Your task to perform on an android device: uninstall "ZOOM Cloud Meetings" Image 0: 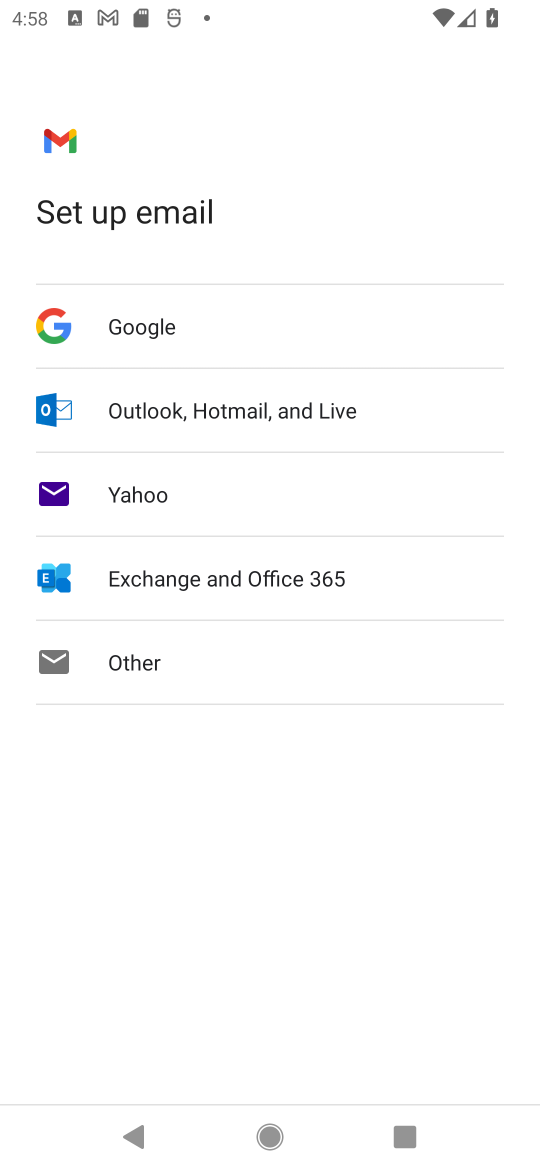
Step 0: press home button
Your task to perform on an android device: uninstall "ZOOM Cloud Meetings" Image 1: 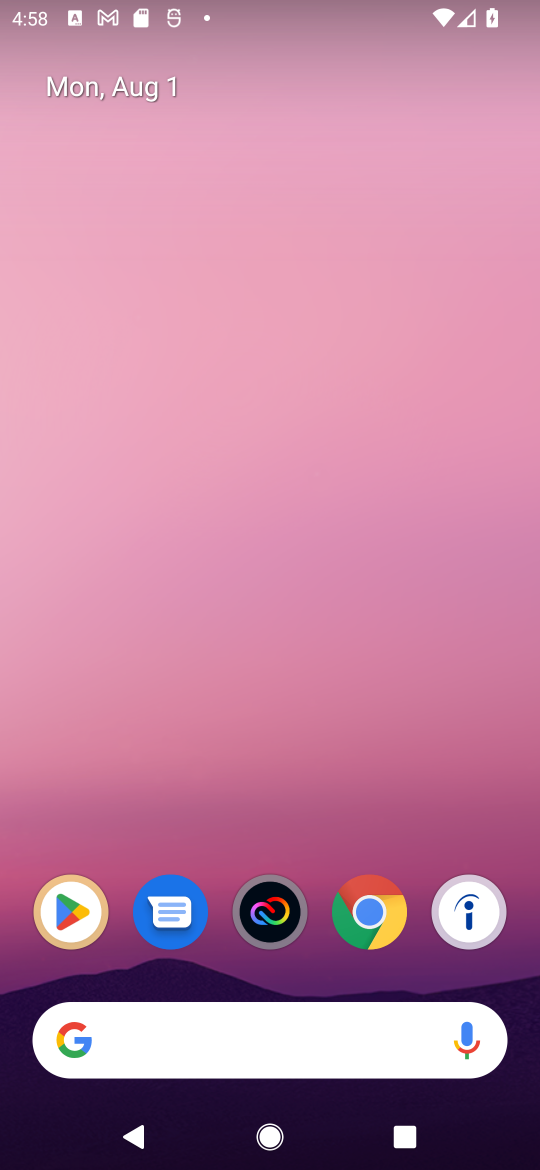
Step 1: click (62, 922)
Your task to perform on an android device: uninstall "ZOOM Cloud Meetings" Image 2: 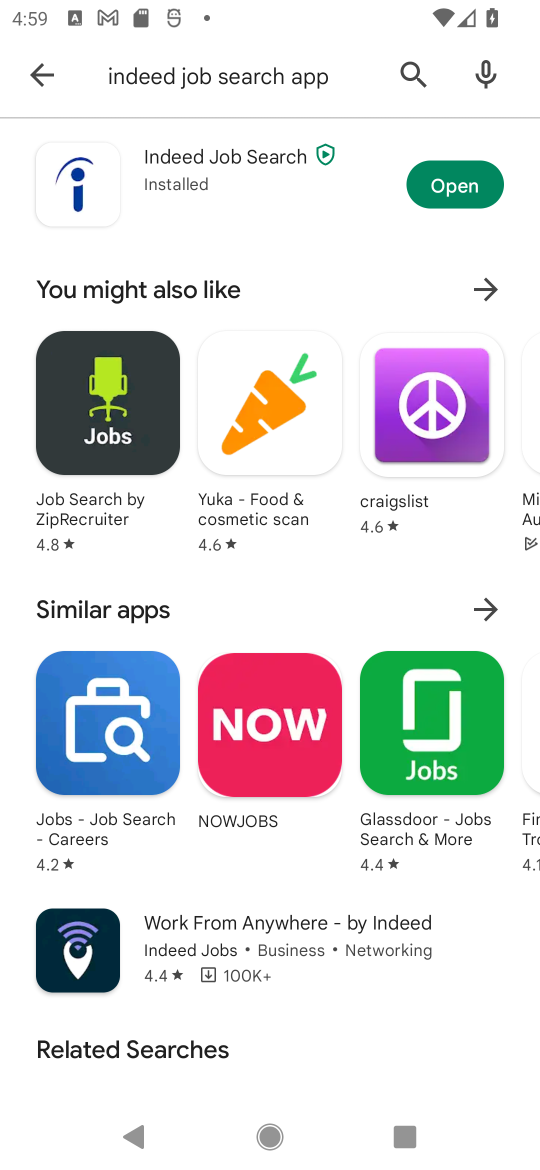
Step 2: click (407, 66)
Your task to perform on an android device: uninstall "ZOOM Cloud Meetings" Image 3: 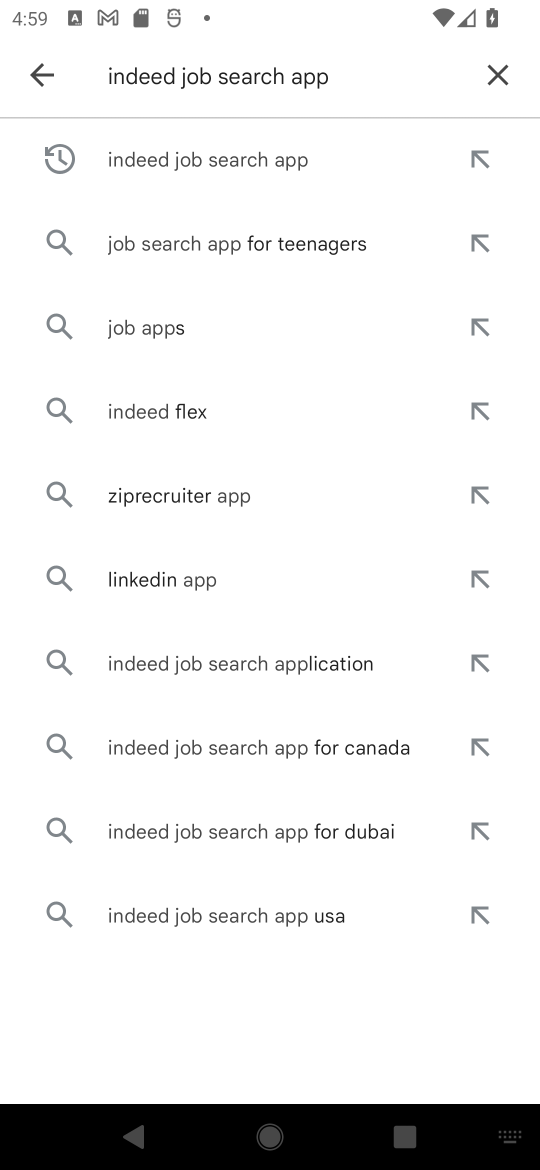
Step 3: click (502, 73)
Your task to perform on an android device: uninstall "ZOOM Cloud Meetings" Image 4: 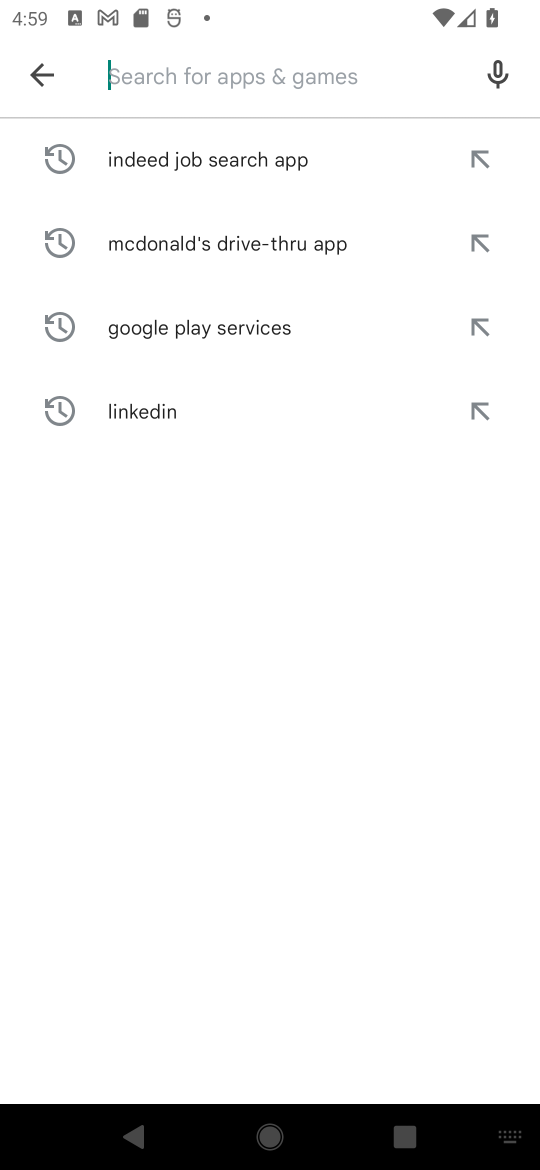
Step 4: type "ZOOM Cloud Meetings"
Your task to perform on an android device: uninstall "ZOOM Cloud Meetings" Image 5: 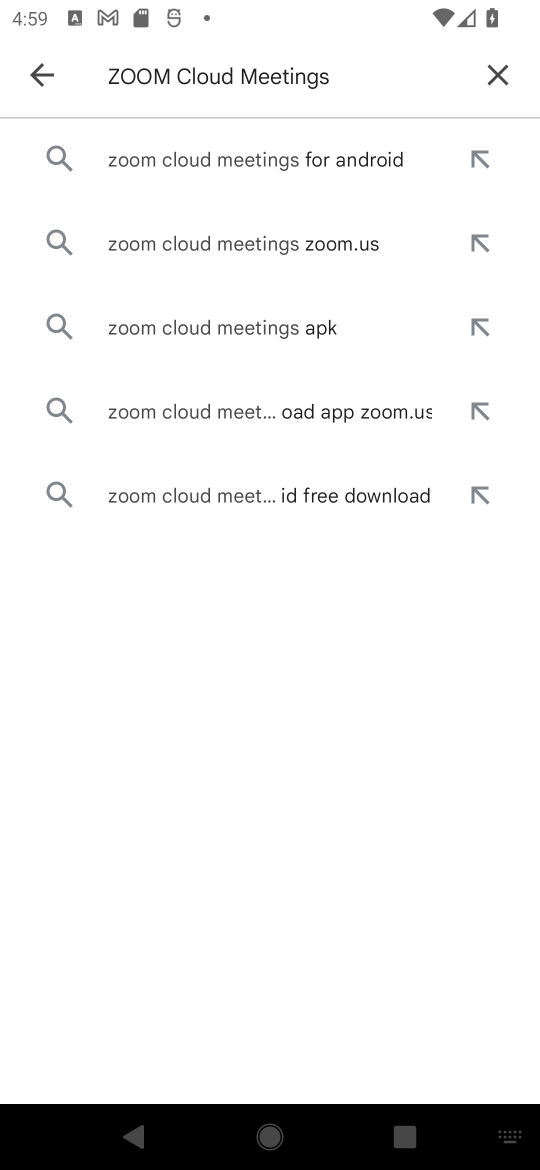
Step 5: click (214, 165)
Your task to perform on an android device: uninstall "ZOOM Cloud Meetings" Image 6: 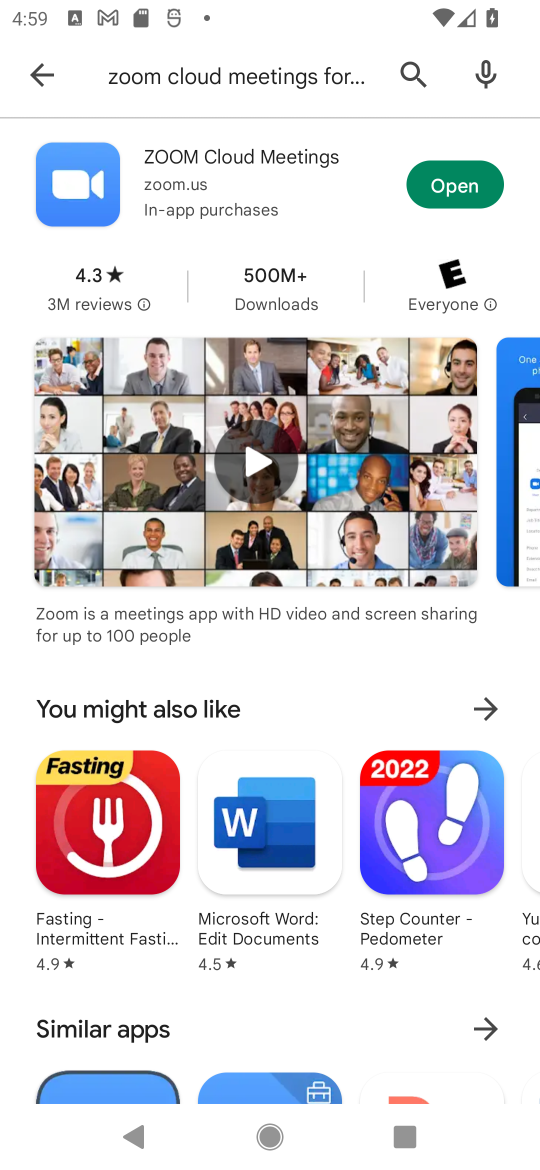
Step 6: click (115, 148)
Your task to perform on an android device: uninstall "ZOOM Cloud Meetings" Image 7: 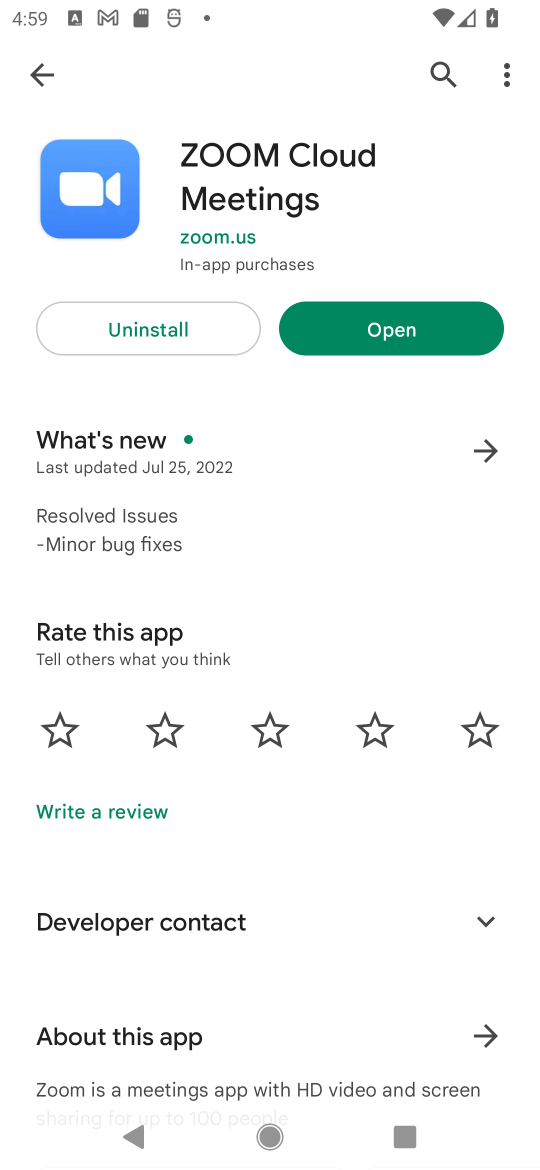
Step 7: click (116, 331)
Your task to perform on an android device: uninstall "ZOOM Cloud Meetings" Image 8: 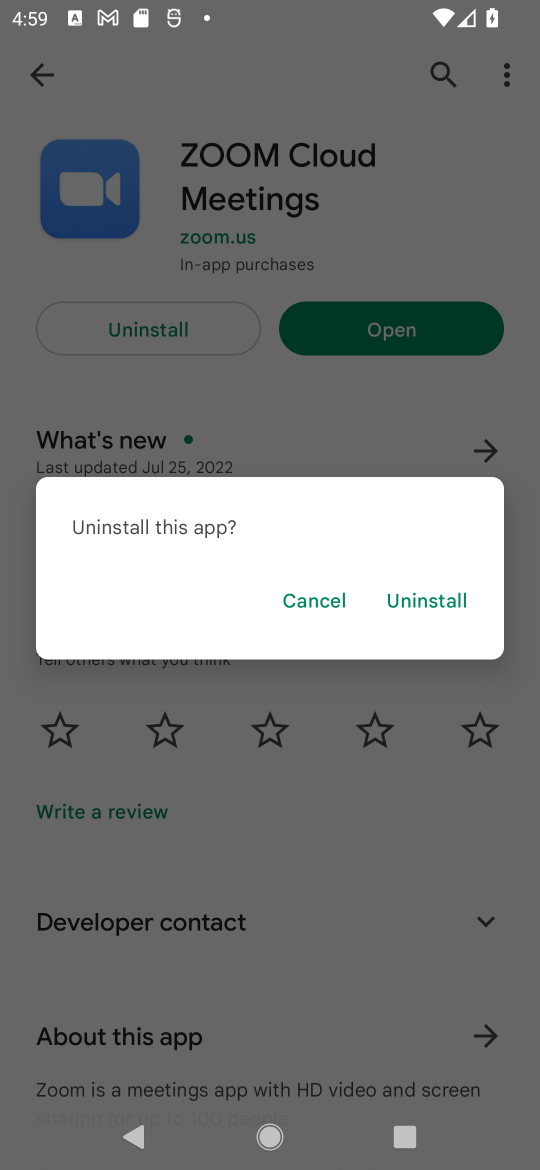
Step 8: click (424, 616)
Your task to perform on an android device: uninstall "ZOOM Cloud Meetings" Image 9: 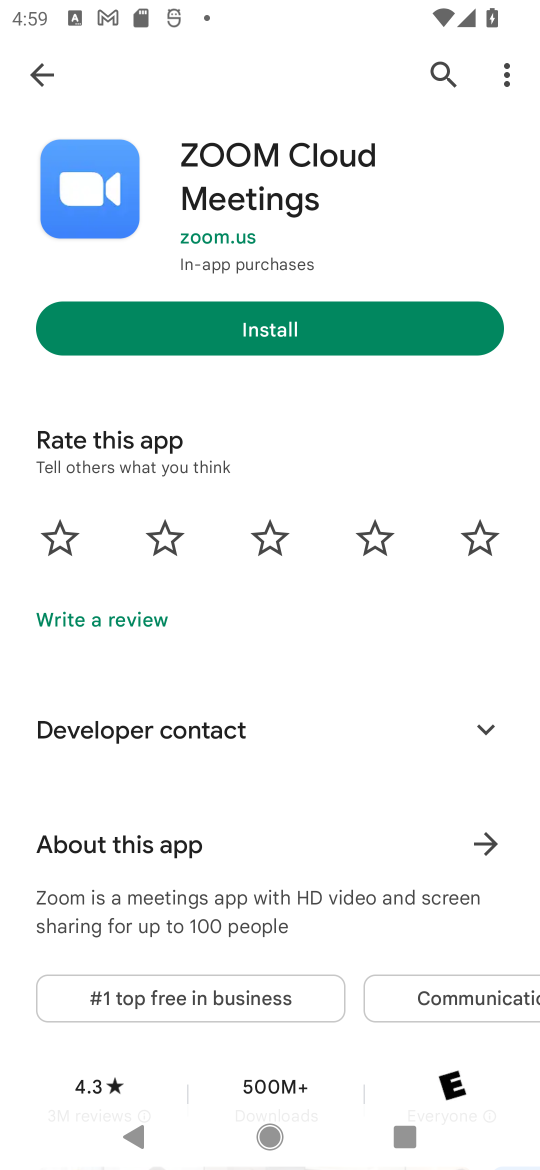
Step 9: task complete